Your task to perform on an android device: open chrome privacy settings Image 0: 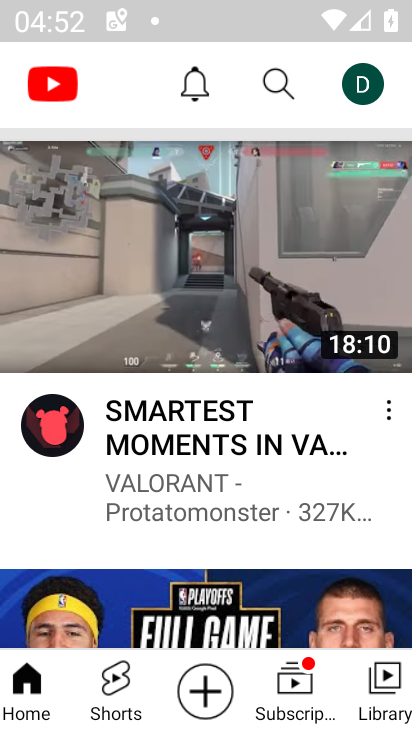
Step 0: press home button
Your task to perform on an android device: open chrome privacy settings Image 1: 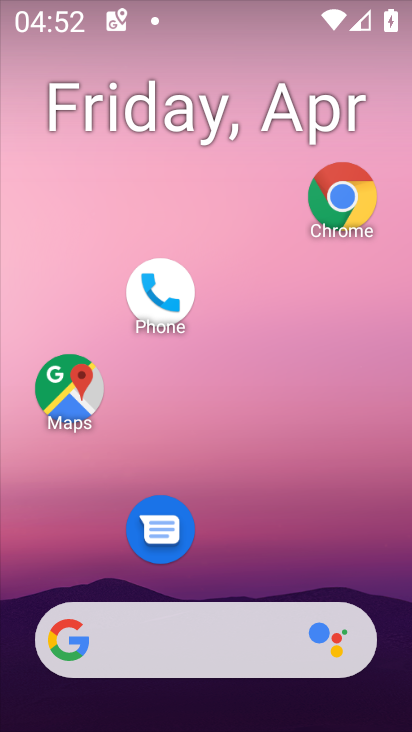
Step 1: drag from (230, 571) to (223, 89)
Your task to perform on an android device: open chrome privacy settings Image 2: 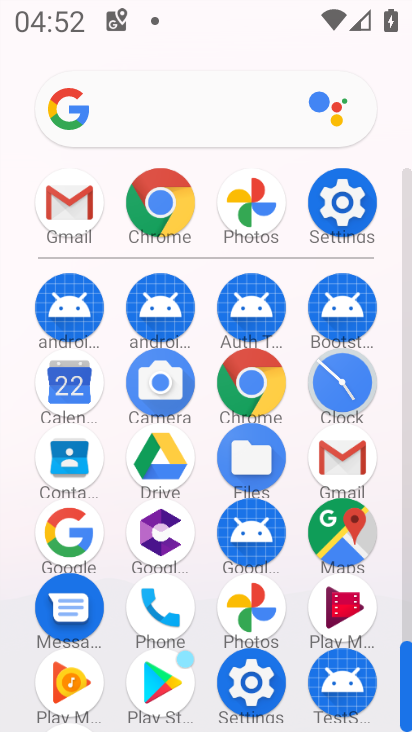
Step 2: click (340, 196)
Your task to perform on an android device: open chrome privacy settings Image 3: 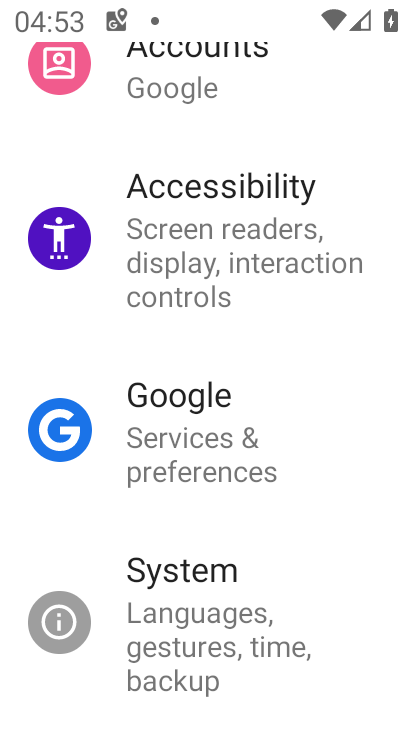
Step 3: drag from (262, 137) to (244, 703)
Your task to perform on an android device: open chrome privacy settings Image 4: 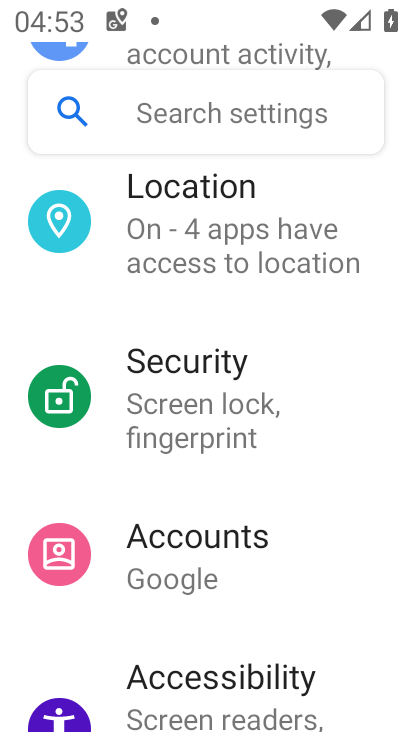
Step 4: drag from (250, 212) to (248, 709)
Your task to perform on an android device: open chrome privacy settings Image 5: 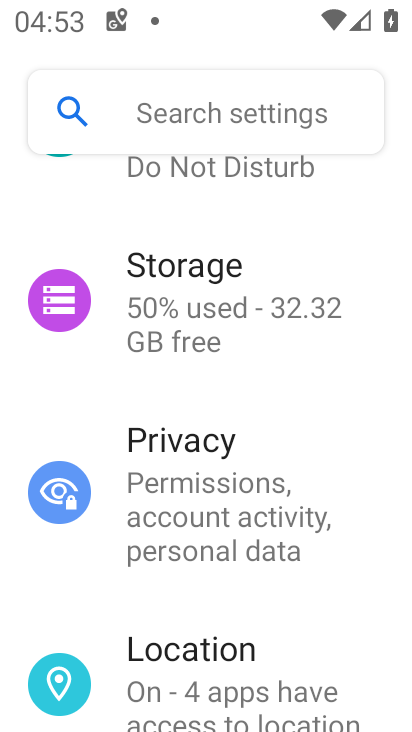
Step 5: click (233, 450)
Your task to perform on an android device: open chrome privacy settings Image 6: 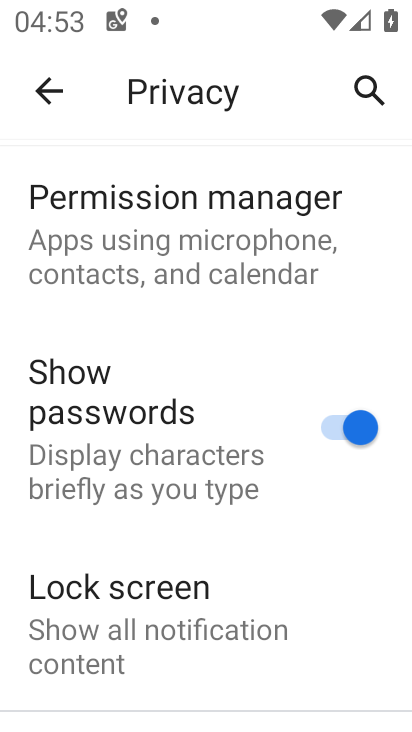
Step 6: drag from (245, 616) to (275, 281)
Your task to perform on an android device: open chrome privacy settings Image 7: 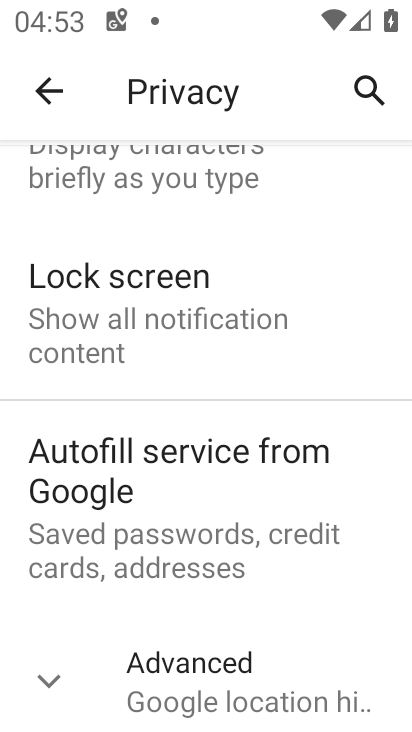
Step 7: click (47, 674)
Your task to perform on an android device: open chrome privacy settings Image 8: 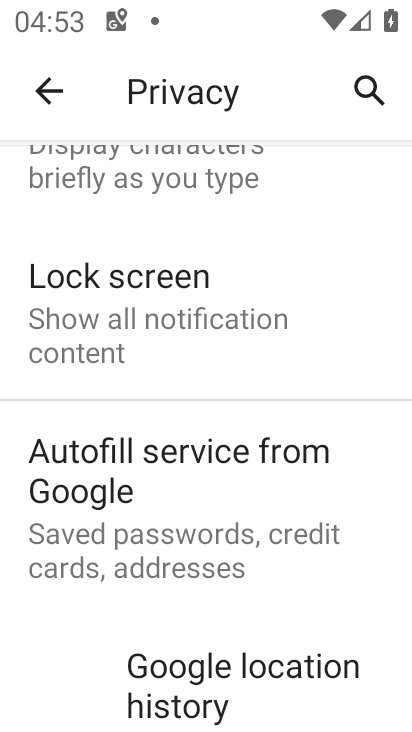
Step 8: task complete